Your task to perform on an android device: What is the recent news? Image 0: 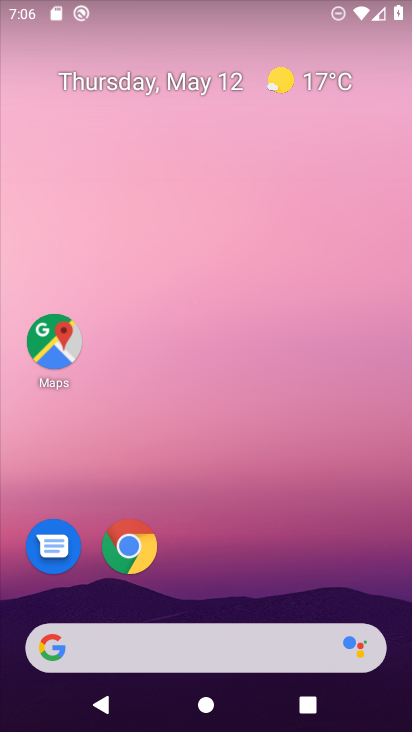
Step 0: drag from (2, 211) to (393, 584)
Your task to perform on an android device: What is the recent news? Image 1: 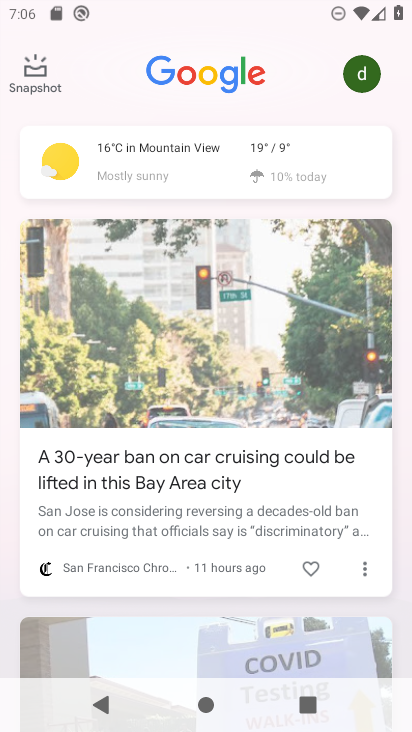
Step 1: task complete